Your task to perform on an android device: turn off location history Image 0: 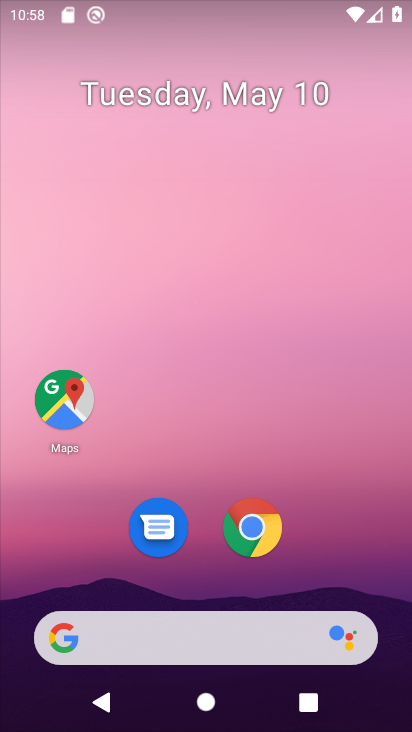
Step 0: drag from (353, 538) to (353, 129)
Your task to perform on an android device: turn off location history Image 1: 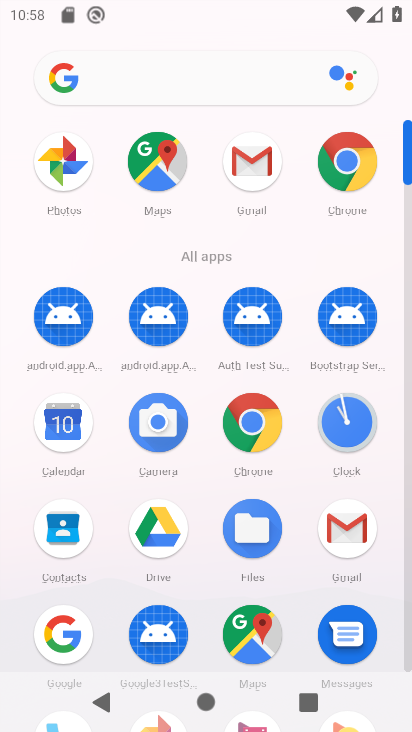
Step 1: drag from (279, 603) to (270, 238)
Your task to perform on an android device: turn off location history Image 2: 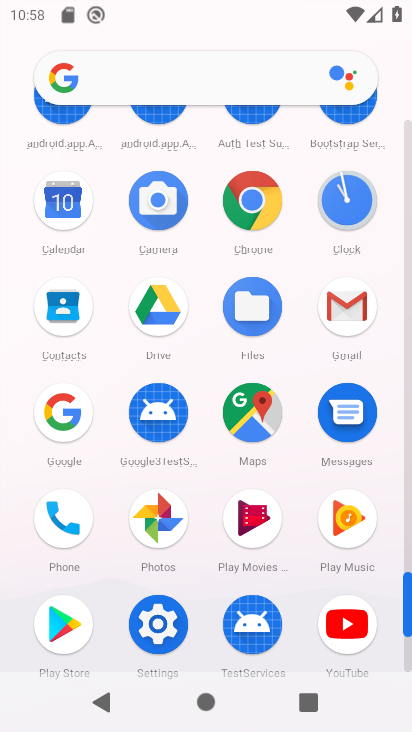
Step 2: click (132, 642)
Your task to perform on an android device: turn off location history Image 3: 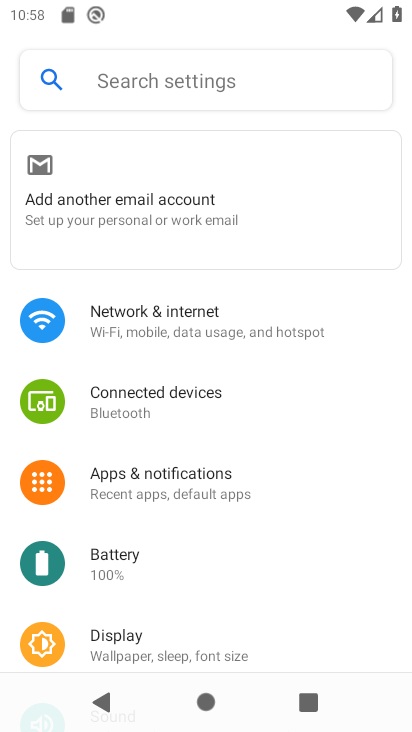
Step 3: drag from (238, 637) to (280, 307)
Your task to perform on an android device: turn off location history Image 4: 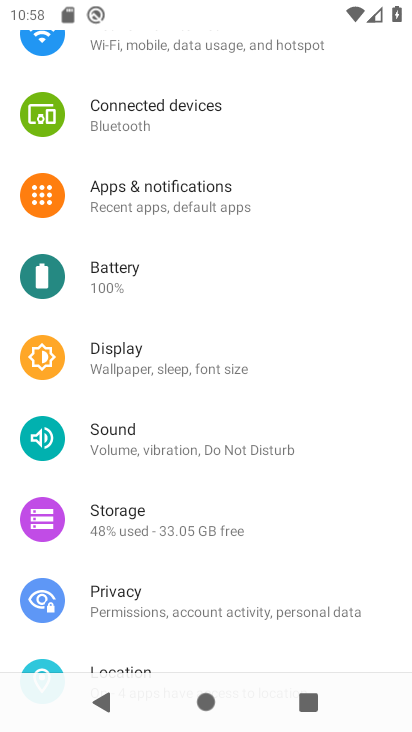
Step 4: drag from (289, 618) to (329, 342)
Your task to perform on an android device: turn off location history Image 5: 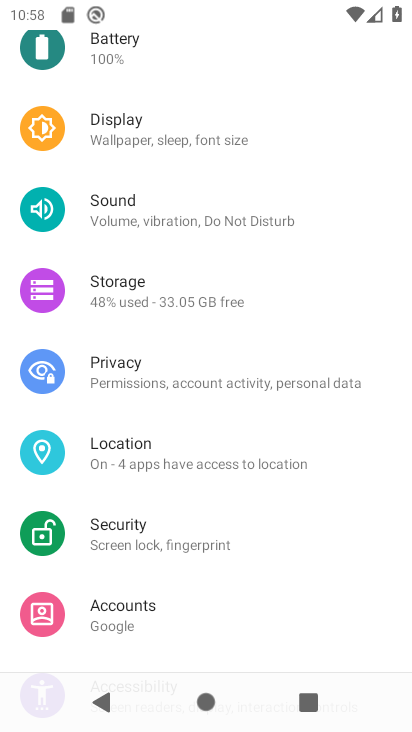
Step 5: click (167, 461)
Your task to perform on an android device: turn off location history Image 6: 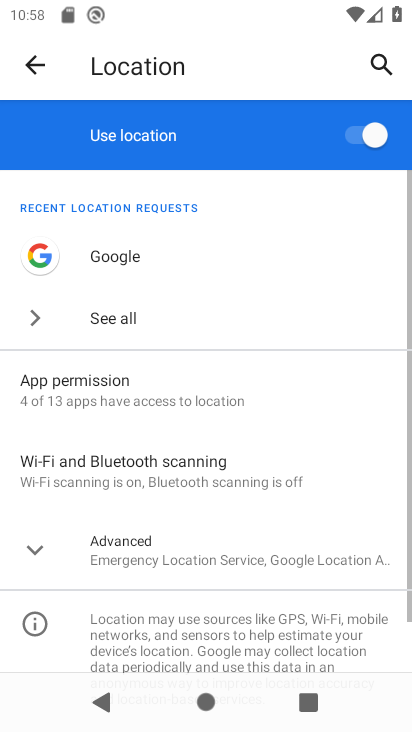
Step 6: click (203, 550)
Your task to perform on an android device: turn off location history Image 7: 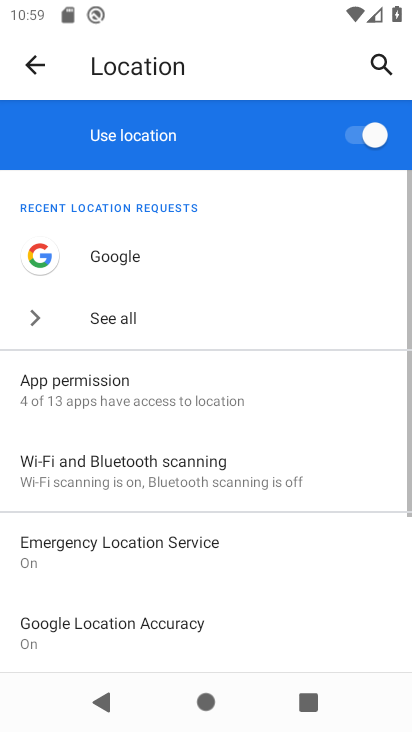
Step 7: drag from (204, 654) to (281, 357)
Your task to perform on an android device: turn off location history Image 8: 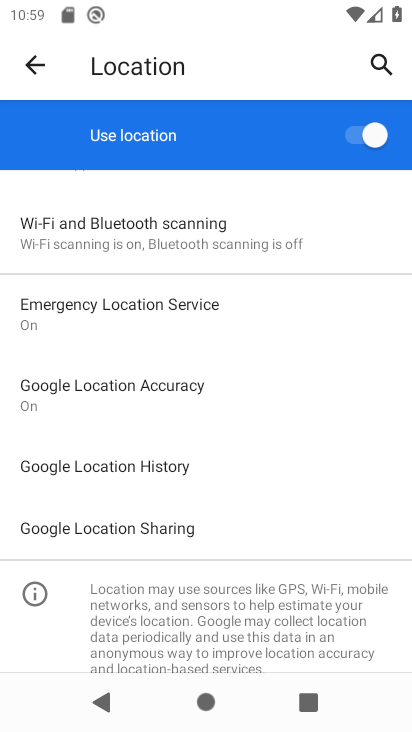
Step 8: click (129, 469)
Your task to perform on an android device: turn off location history Image 9: 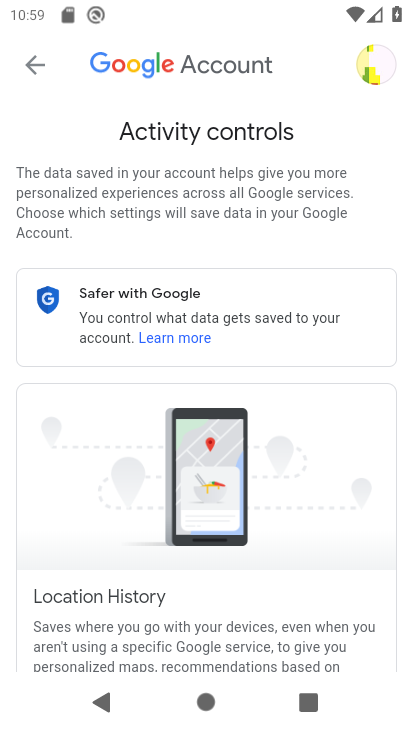
Step 9: drag from (242, 639) to (292, 423)
Your task to perform on an android device: turn off location history Image 10: 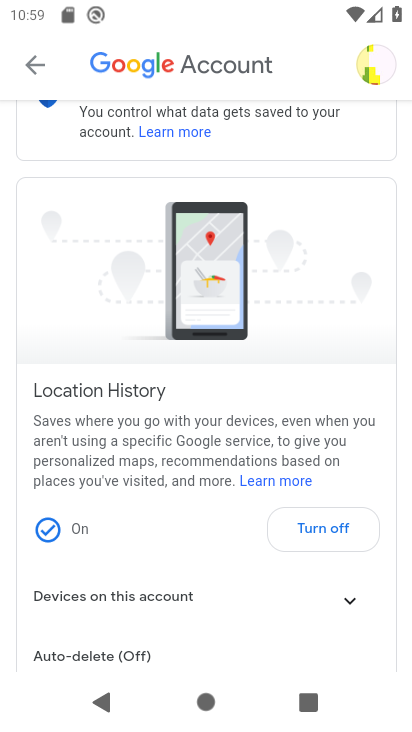
Step 10: drag from (195, 618) to (227, 386)
Your task to perform on an android device: turn off location history Image 11: 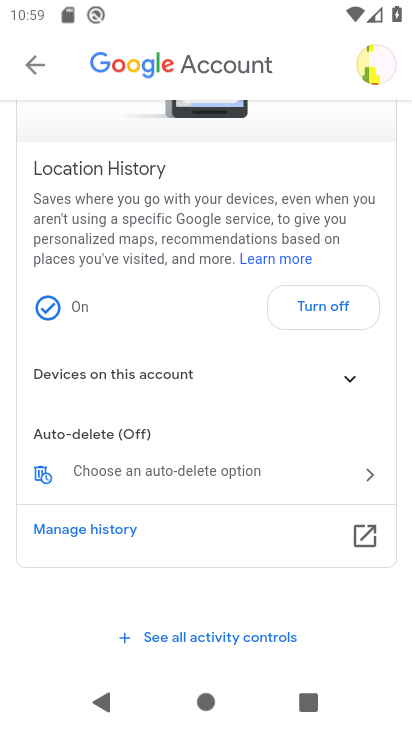
Step 11: click (337, 305)
Your task to perform on an android device: turn off location history Image 12: 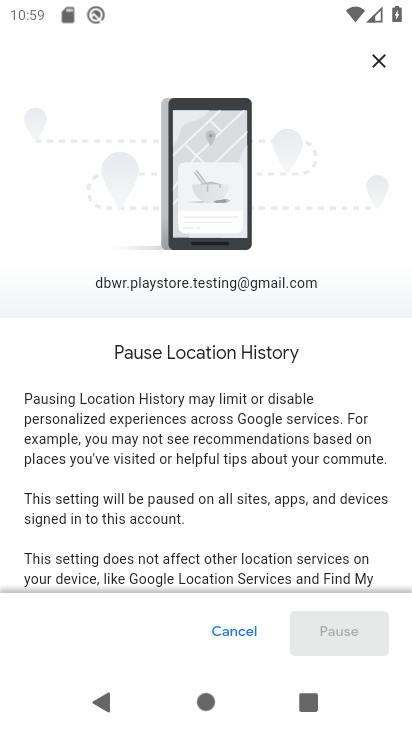
Step 12: drag from (251, 552) to (237, 209)
Your task to perform on an android device: turn off location history Image 13: 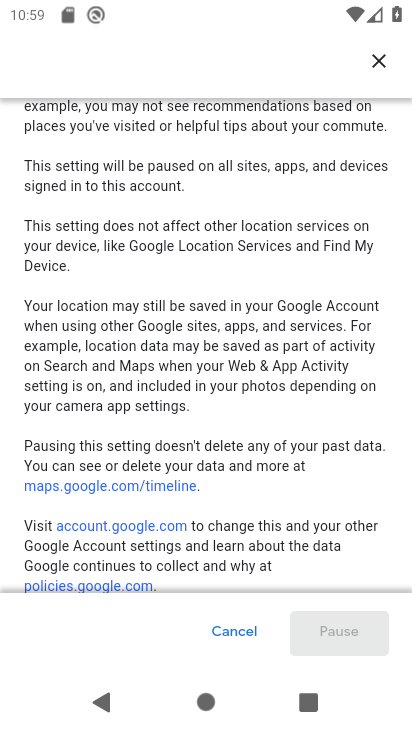
Step 13: drag from (233, 496) to (234, 160)
Your task to perform on an android device: turn off location history Image 14: 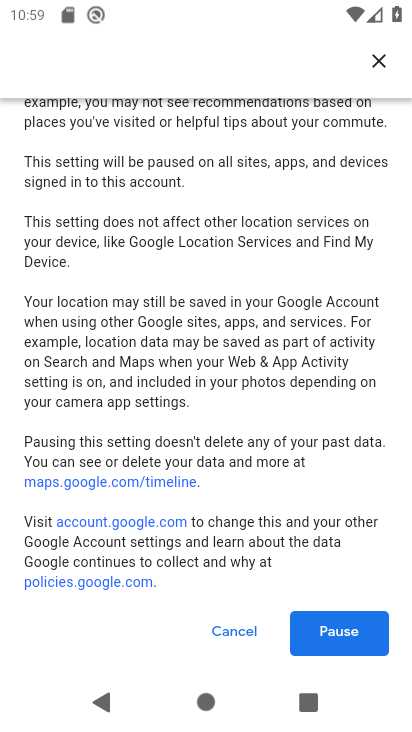
Step 14: click (346, 629)
Your task to perform on an android device: turn off location history Image 15: 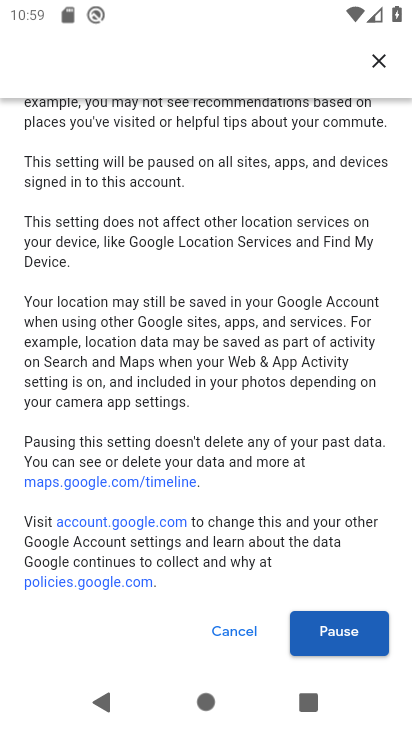
Step 15: click (344, 634)
Your task to perform on an android device: turn off location history Image 16: 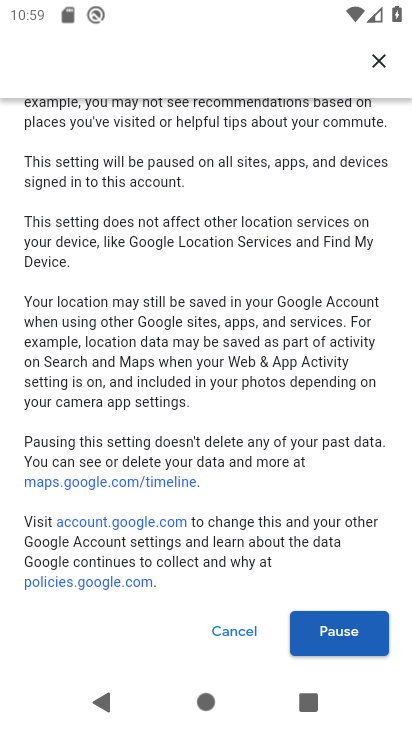
Step 16: click (344, 635)
Your task to perform on an android device: turn off location history Image 17: 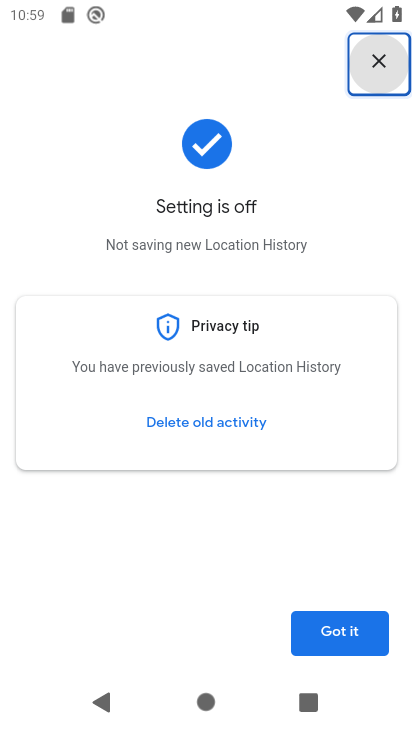
Step 17: click (346, 639)
Your task to perform on an android device: turn off location history Image 18: 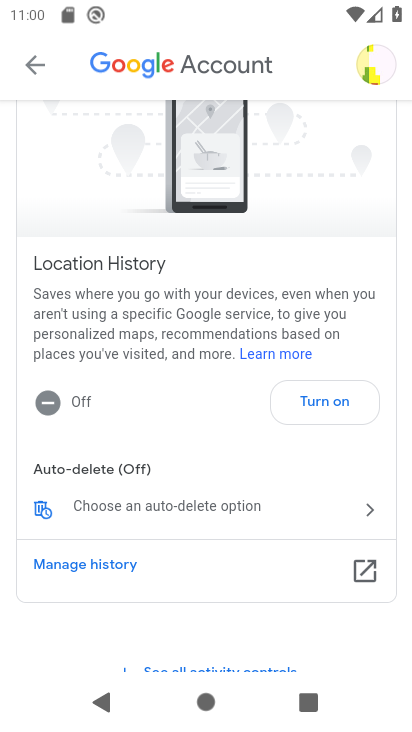
Step 18: task complete